Your task to perform on an android device: Open the web browser Image 0: 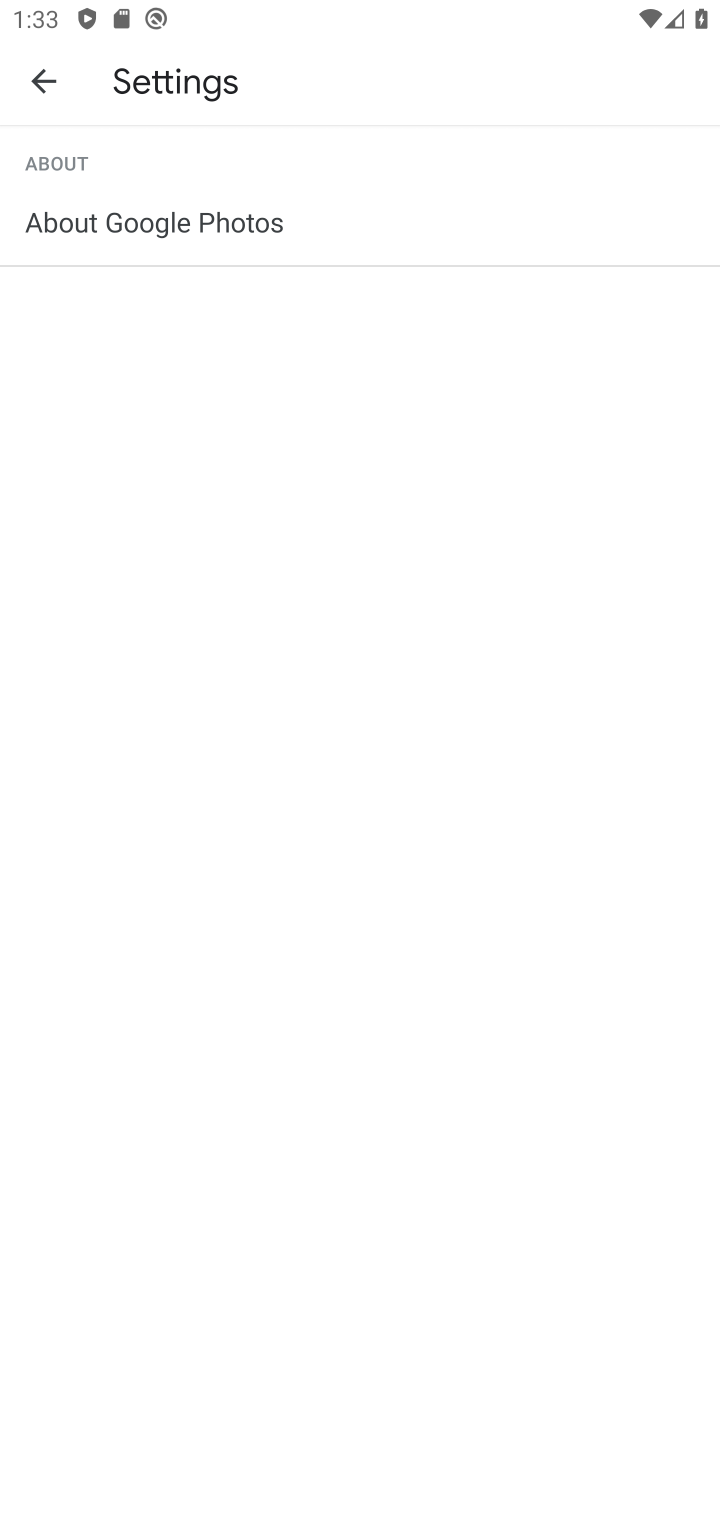
Step 0: press home button
Your task to perform on an android device: Open the web browser Image 1: 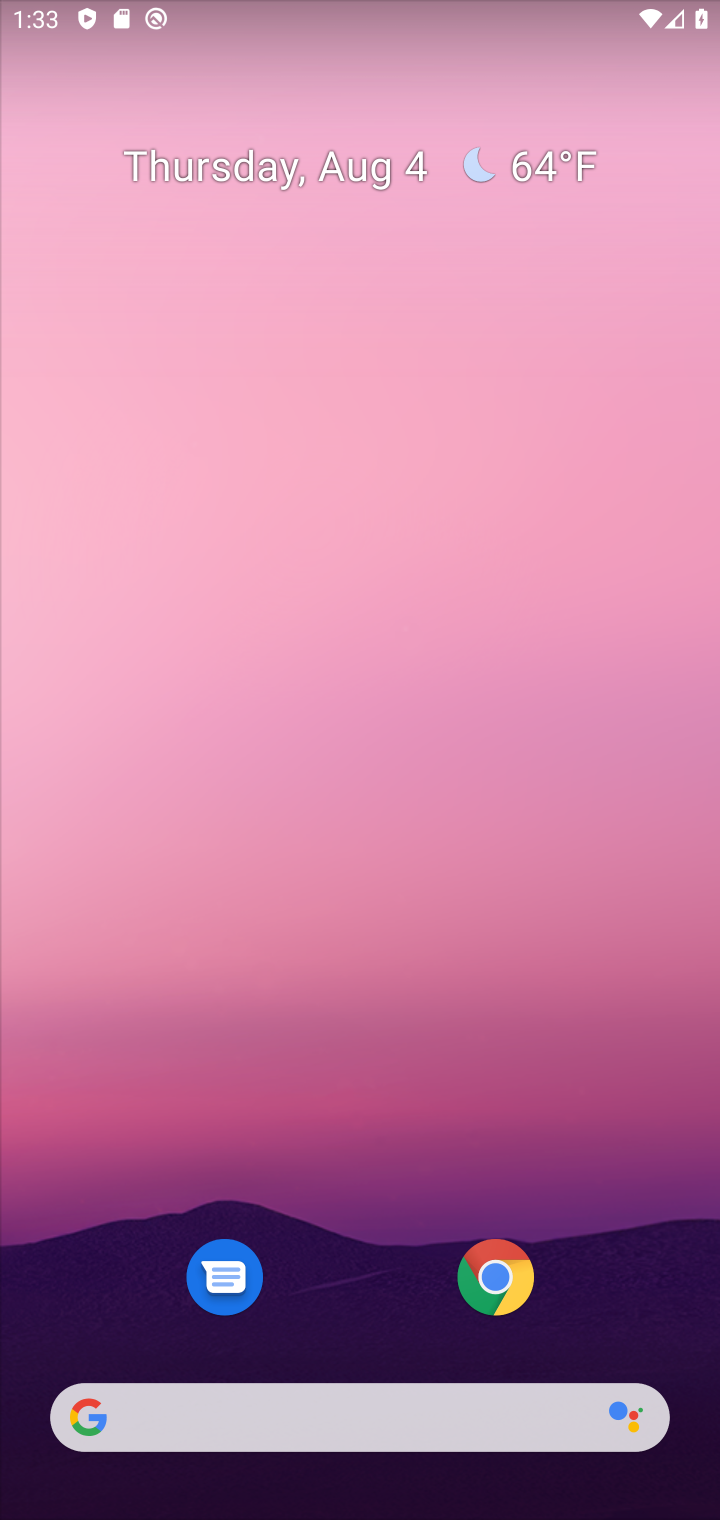
Step 1: drag from (372, 1278) to (395, 717)
Your task to perform on an android device: Open the web browser Image 2: 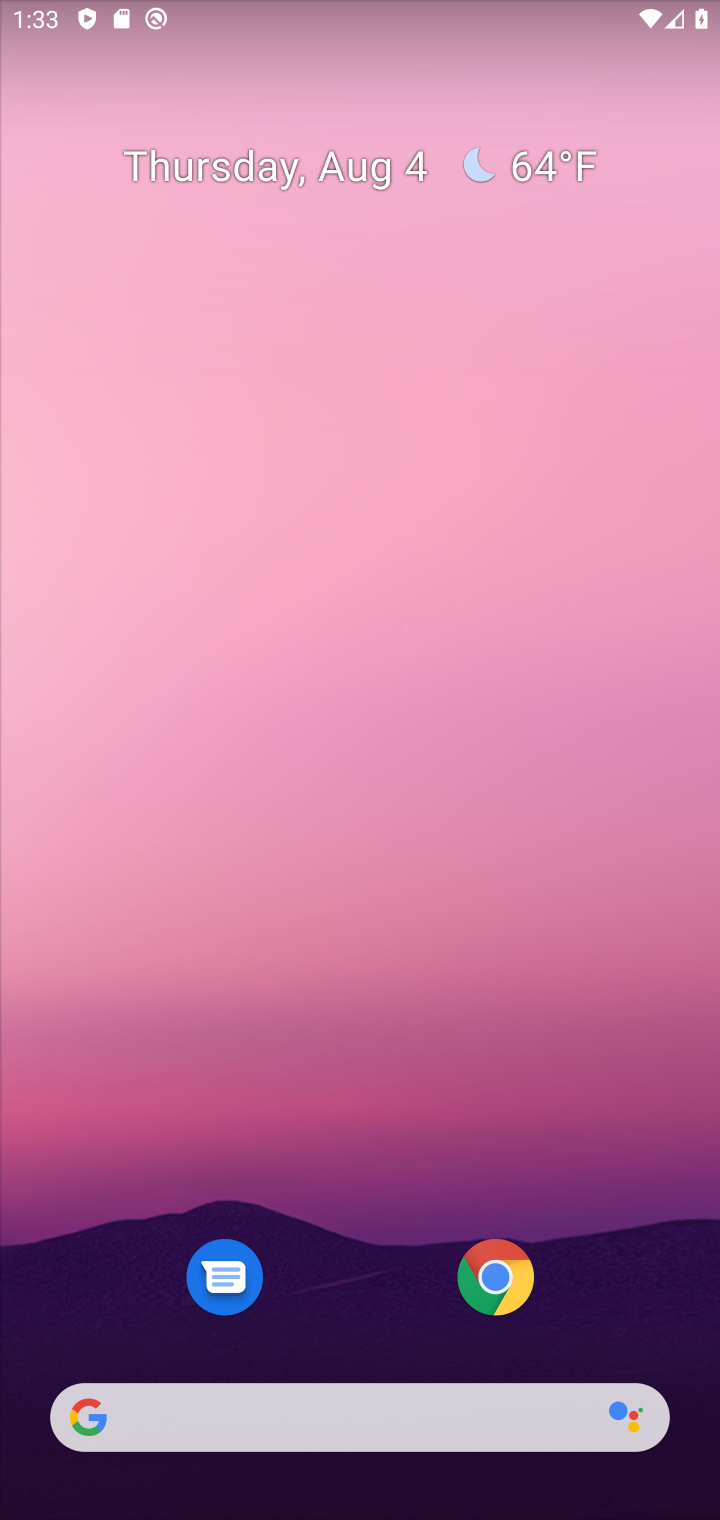
Step 2: click (475, 1300)
Your task to perform on an android device: Open the web browser Image 3: 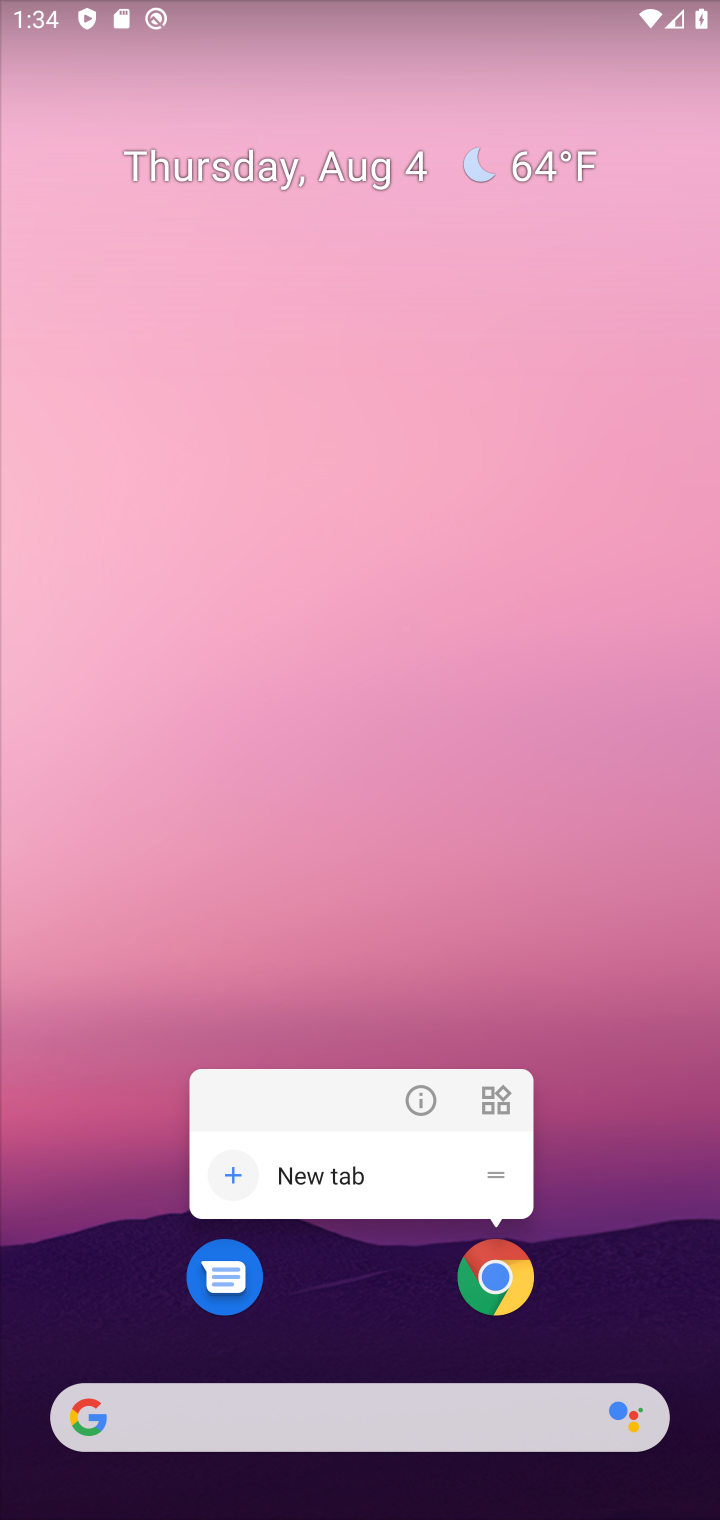
Step 3: click (495, 1296)
Your task to perform on an android device: Open the web browser Image 4: 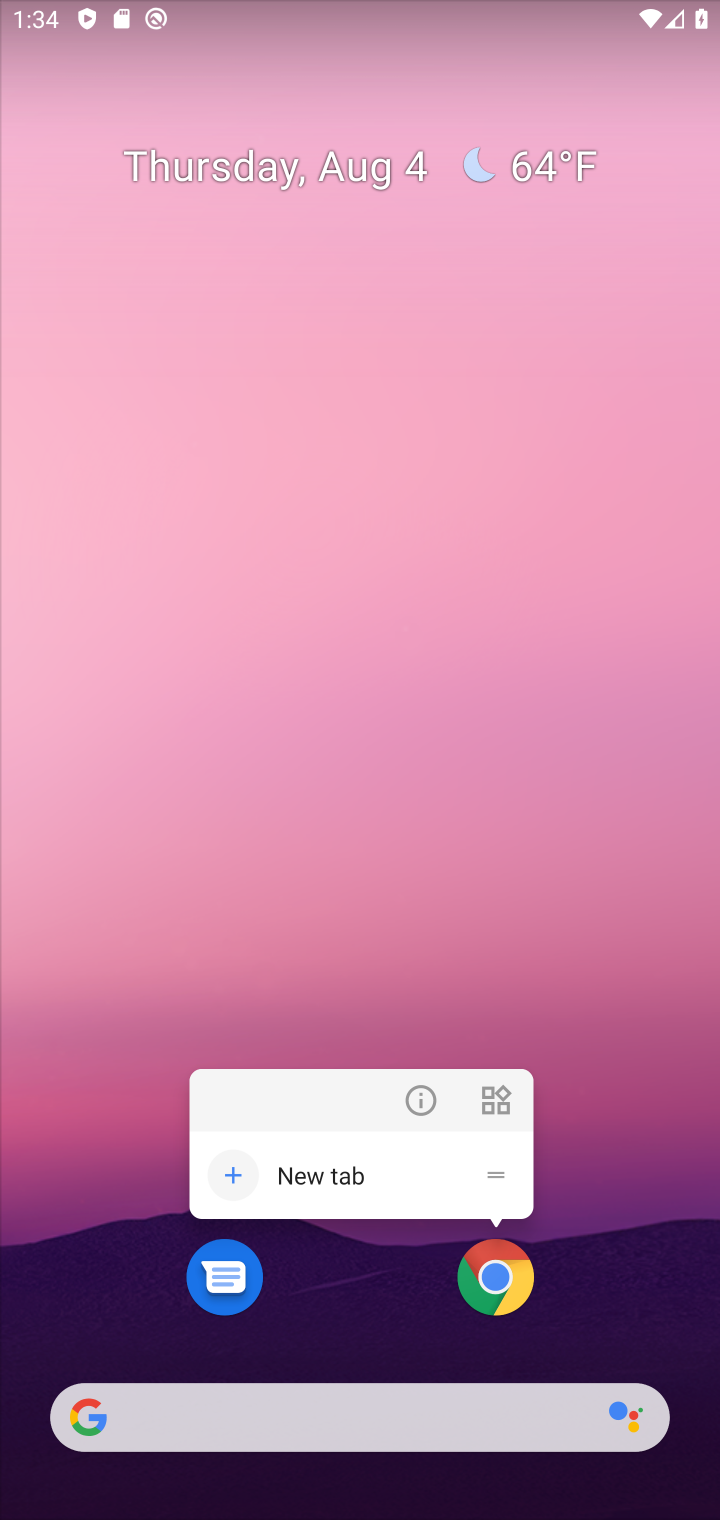
Step 4: click (526, 1295)
Your task to perform on an android device: Open the web browser Image 5: 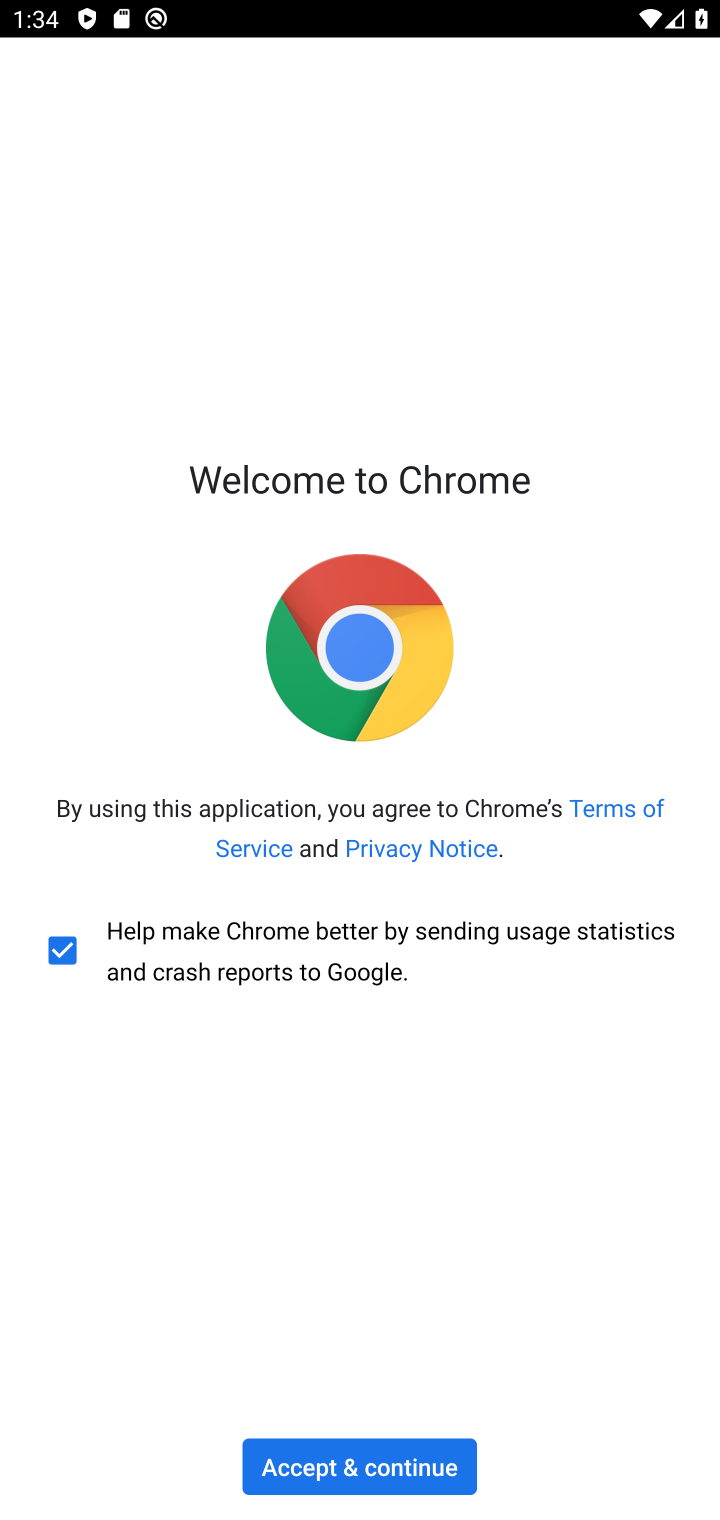
Step 5: task complete